Your task to perform on an android device: turn on notifications settings in the gmail app Image 0: 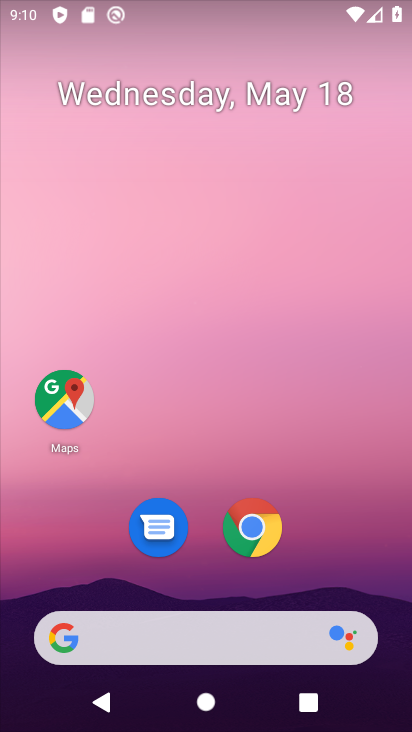
Step 0: drag from (331, 565) to (325, 157)
Your task to perform on an android device: turn on notifications settings in the gmail app Image 1: 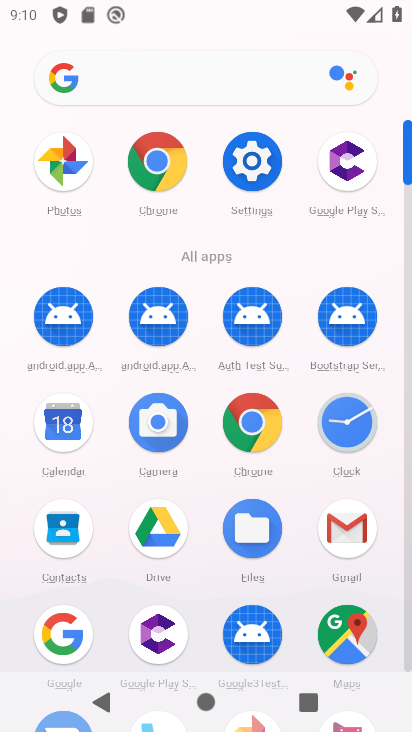
Step 1: click (353, 517)
Your task to perform on an android device: turn on notifications settings in the gmail app Image 2: 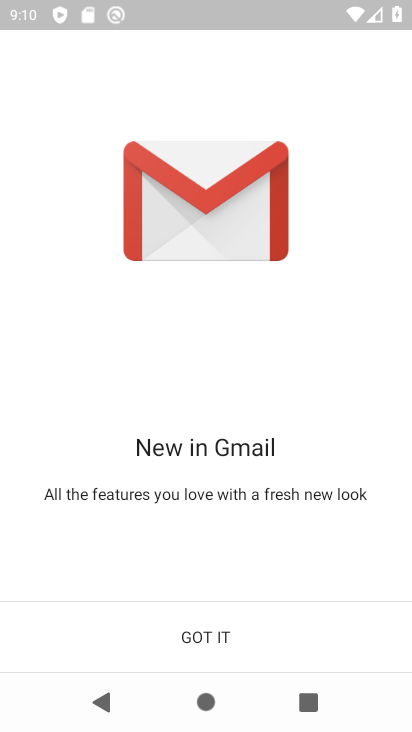
Step 2: click (199, 641)
Your task to perform on an android device: turn on notifications settings in the gmail app Image 3: 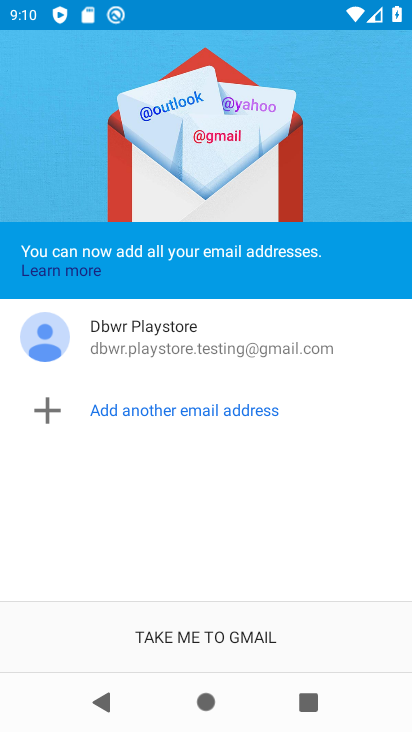
Step 3: click (199, 641)
Your task to perform on an android device: turn on notifications settings in the gmail app Image 4: 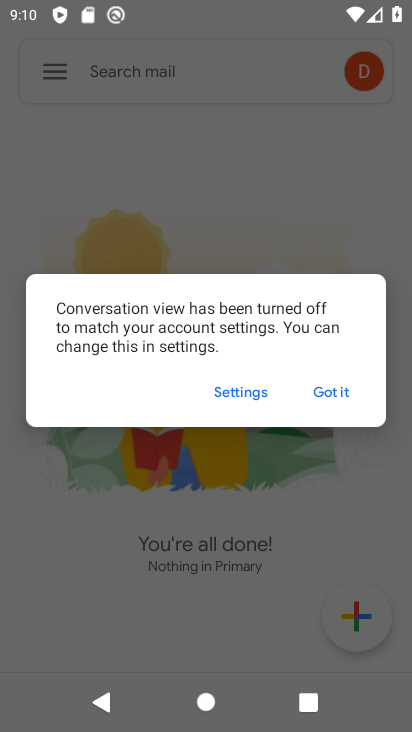
Step 4: click (337, 389)
Your task to perform on an android device: turn on notifications settings in the gmail app Image 5: 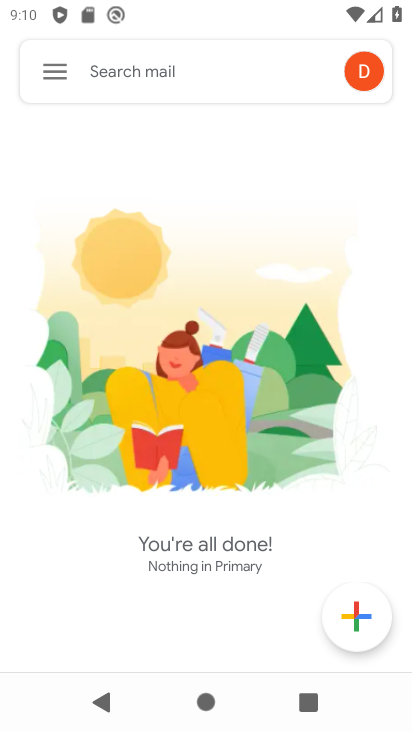
Step 5: click (61, 73)
Your task to perform on an android device: turn on notifications settings in the gmail app Image 6: 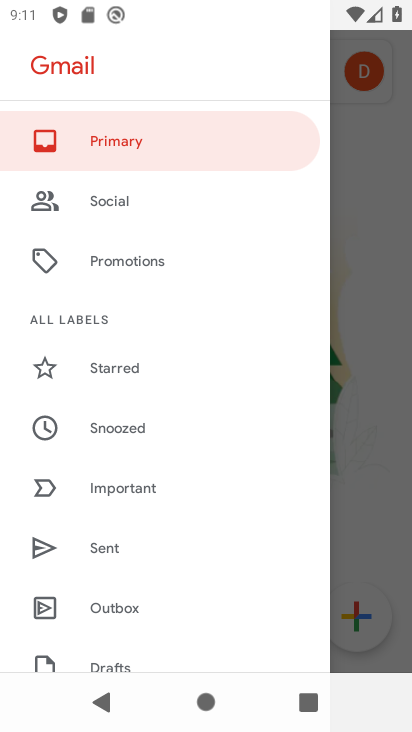
Step 6: drag from (201, 580) to (202, 270)
Your task to perform on an android device: turn on notifications settings in the gmail app Image 7: 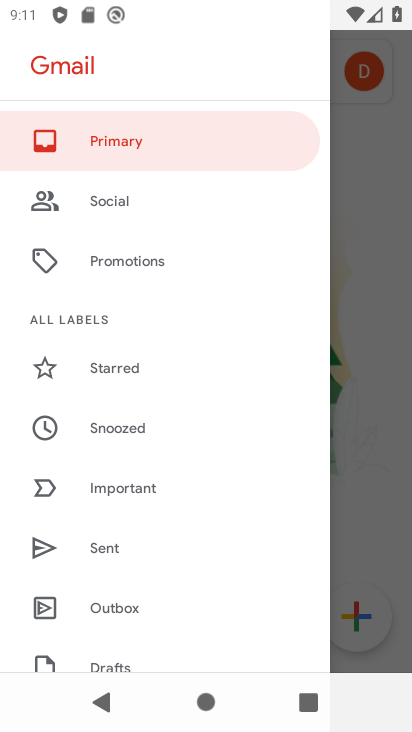
Step 7: drag from (179, 577) to (189, 227)
Your task to perform on an android device: turn on notifications settings in the gmail app Image 8: 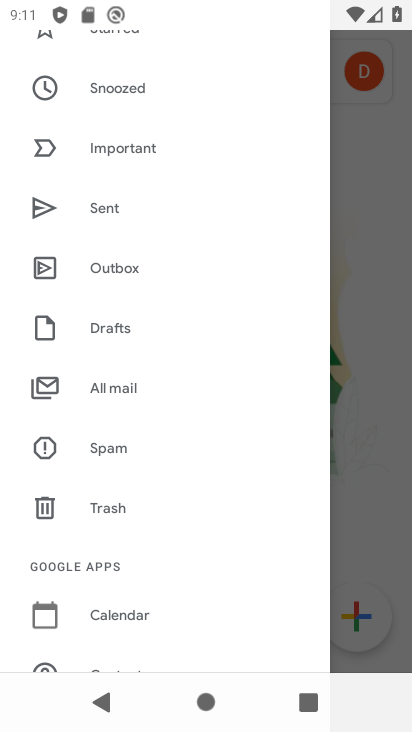
Step 8: drag from (141, 617) to (170, 269)
Your task to perform on an android device: turn on notifications settings in the gmail app Image 9: 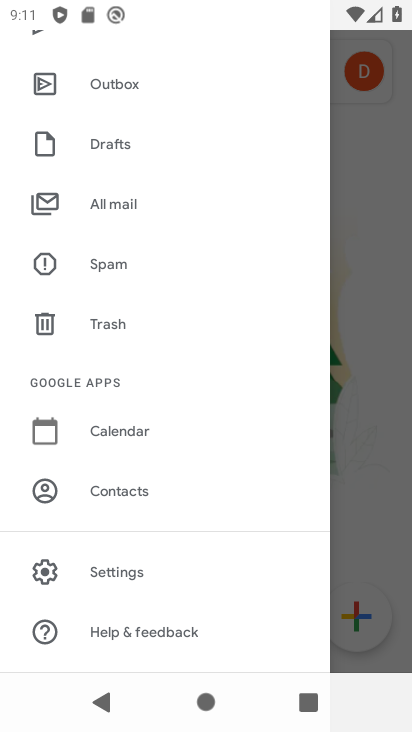
Step 9: click (122, 572)
Your task to perform on an android device: turn on notifications settings in the gmail app Image 10: 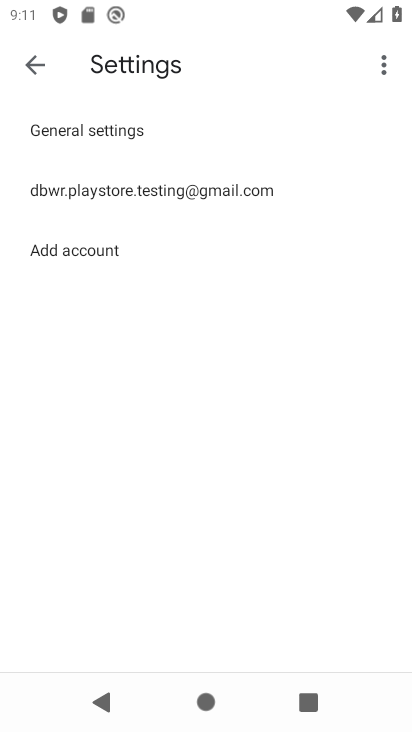
Step 10: click (163, 137)
Your task to perform on an android device: turn on notifications settings in the gmail app Image 11: 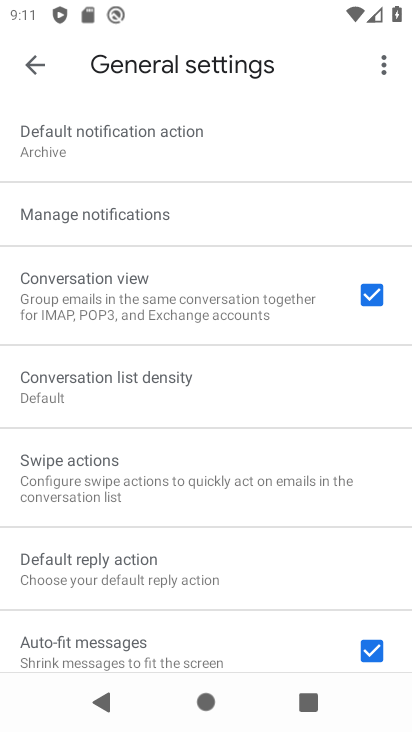
Step 11: click (102, 209)
Your task to perform on an android device: turn on notifications settings in the gmail app Image 12: 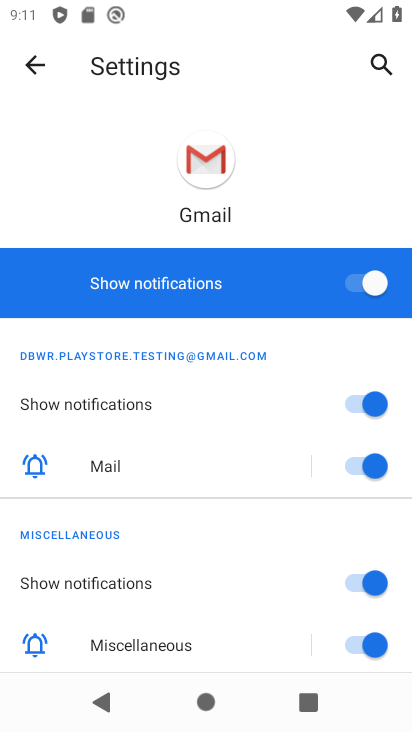
Step 12: task complete